Your task to perform on an android device: set the stopwatch Image 0: 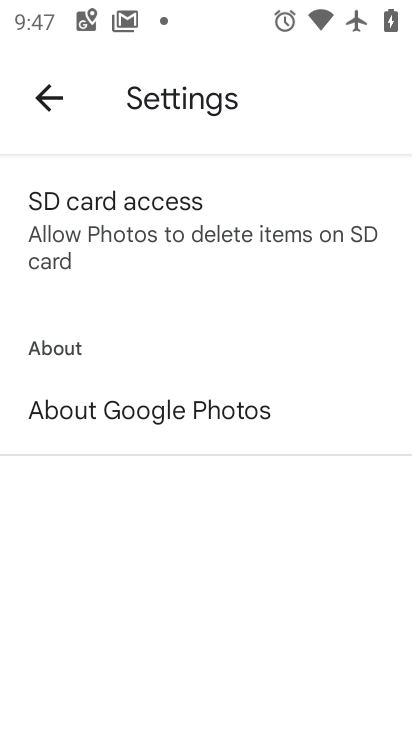
Step 0: press home button
Your task to perform on an android device: set the stopwatch Image 1: 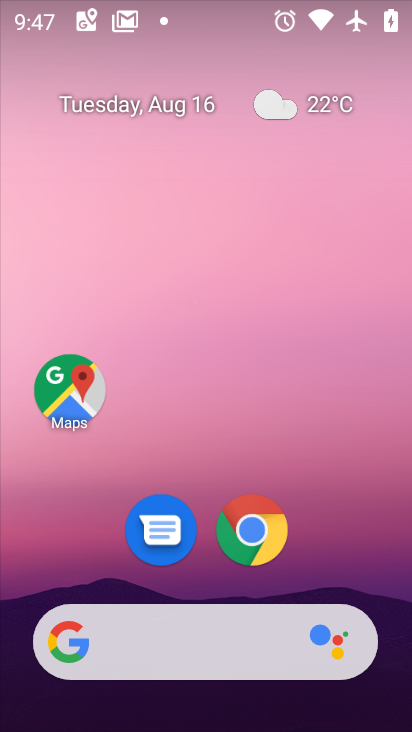
Step 1: drag from (332, 463) to (352, 83)
Your task to perform on an android device: set the stopwatch Image 2: 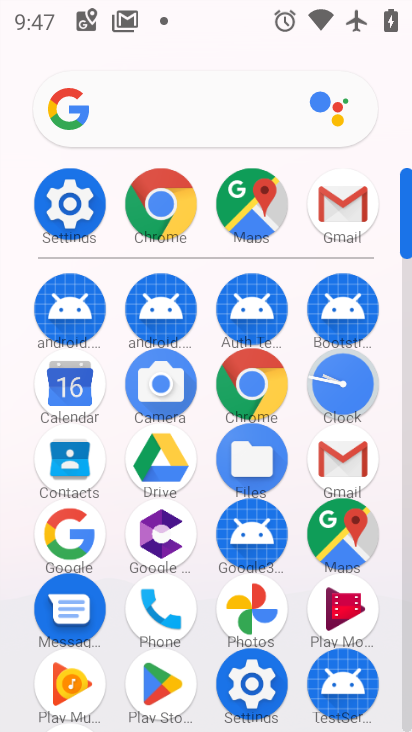
Step 2: click (340, 391)
Your task to perform on an android device: set the stopwatch Image 3: 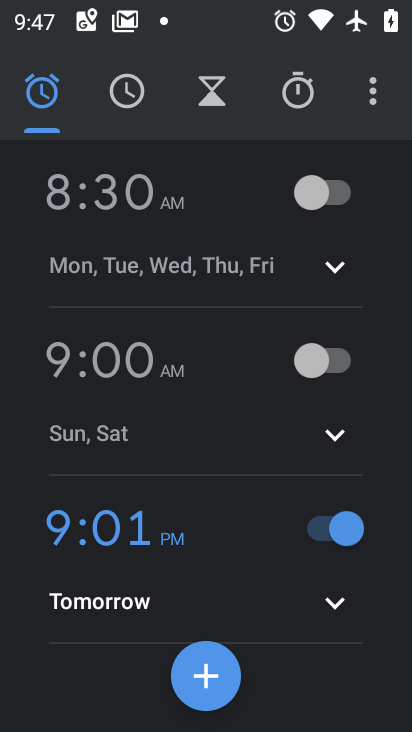
Step 3: click (304, 101)
Your task to perform on an android device: set the stopwatch Image 4: 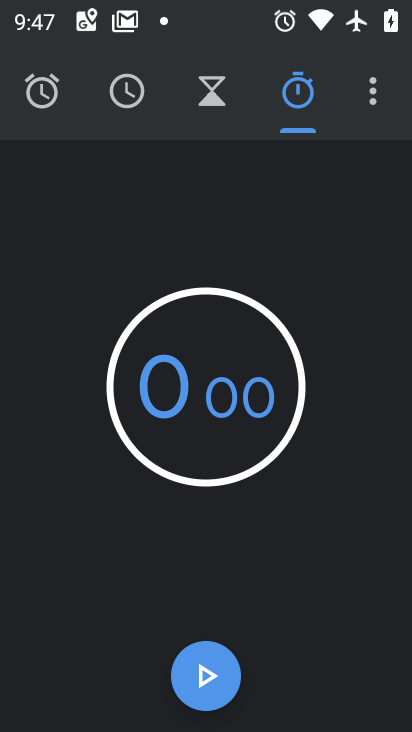
Step 4: click (226, 680)
Your task to perform on an android device: set the stopwatch Image 5: 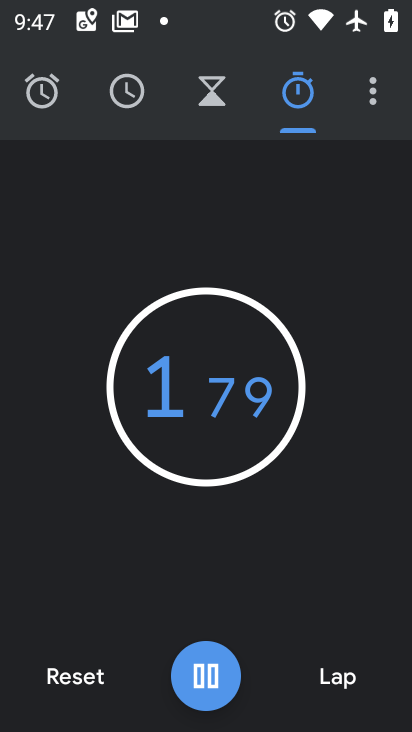
Step 5: click (224, 678)
Your task to perform on an android device: set the stopwatch Image 6: 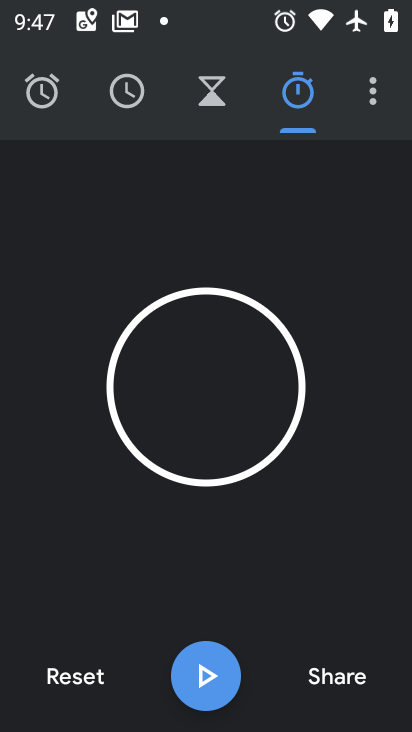
Step 6: task complete